Your task to perform on an android device: turn on showing notifications on the lock screen Image 0: 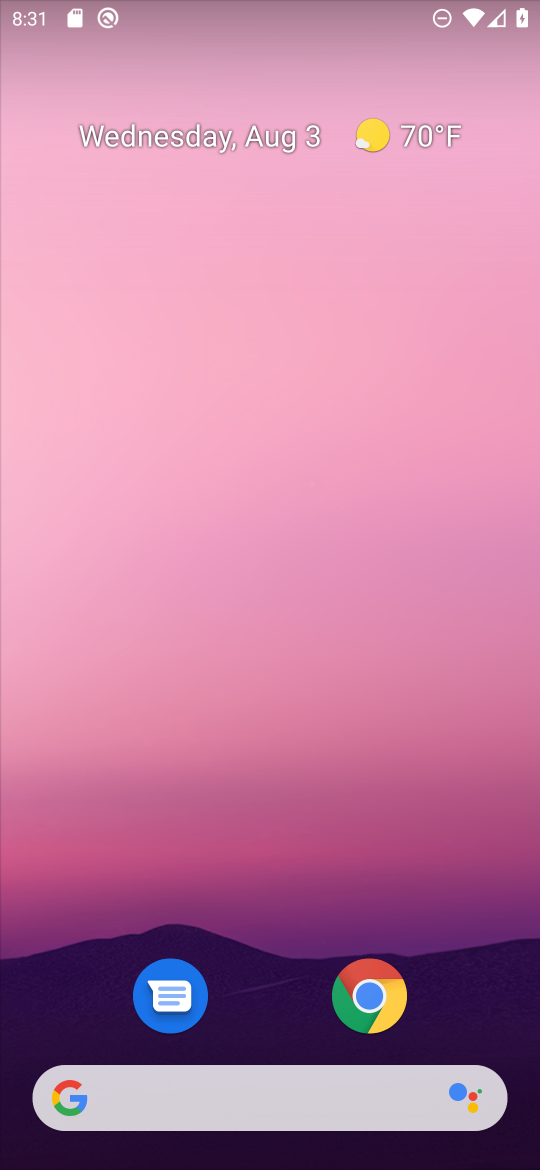
Step 0: drag from (269, 897) to (326, 7)
Your task to perform on an android device: turn on showing notifications on the lock screen Image 1: 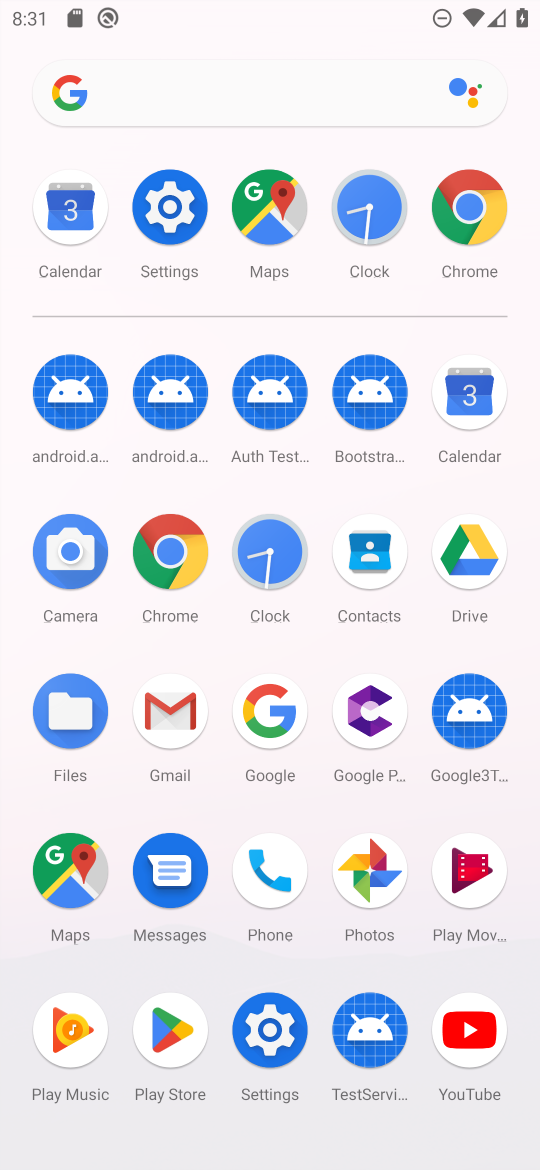
Step 1: click (186, 200)
Your task to perform on an android device: turn on showing notifications on the lock screen Image 2: 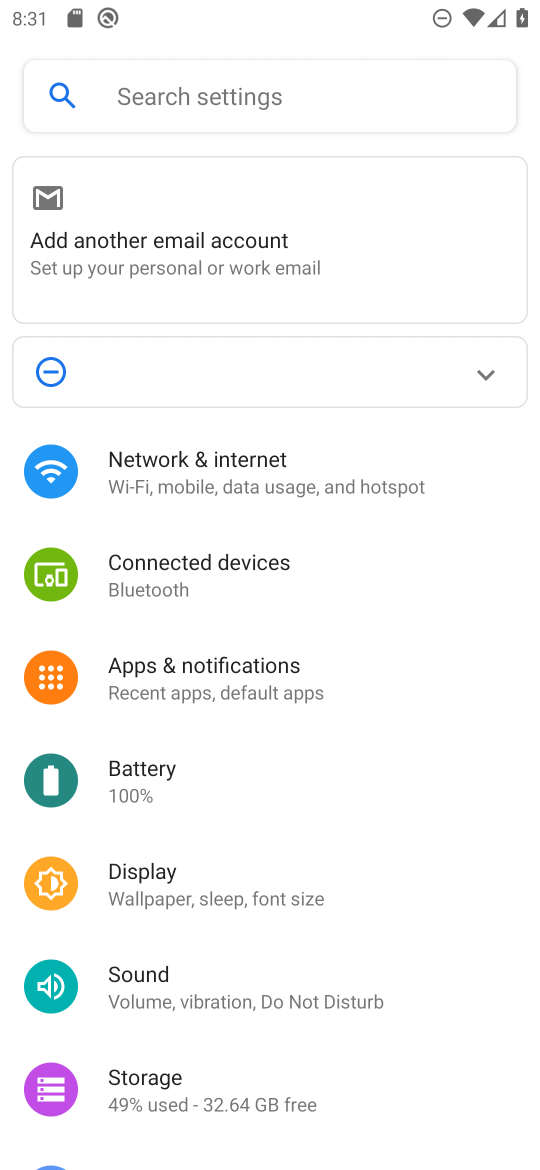
Step 2: click (212, 673)
Your task to perform on an android device: turn on showing notifications on the lock screen Image 3: 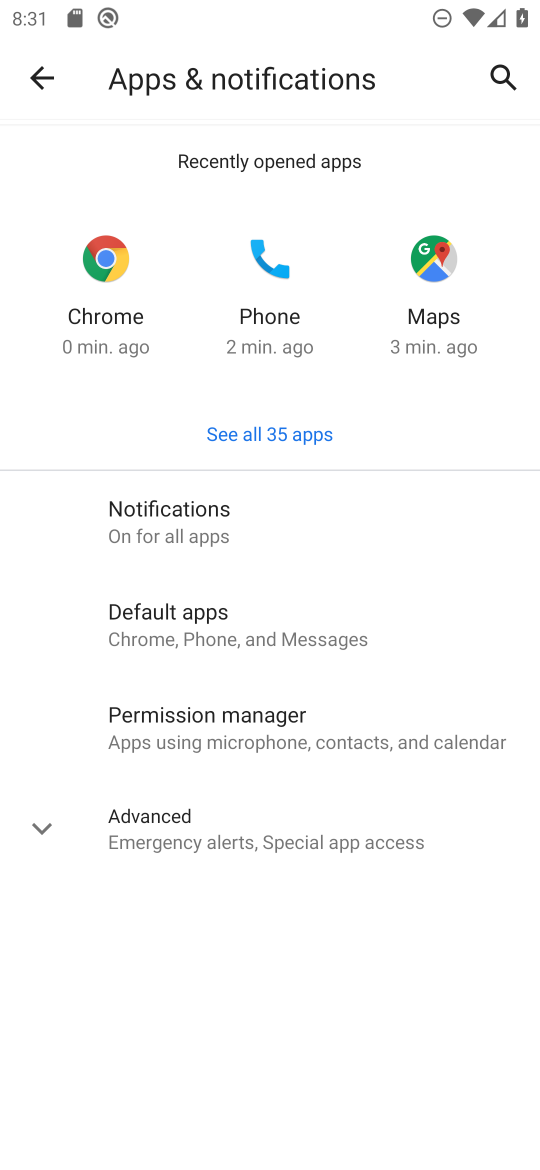
Step 3: click (215, 525)
Your task to perform on an android device: turn on showing notifications on the lock screen Image 4: 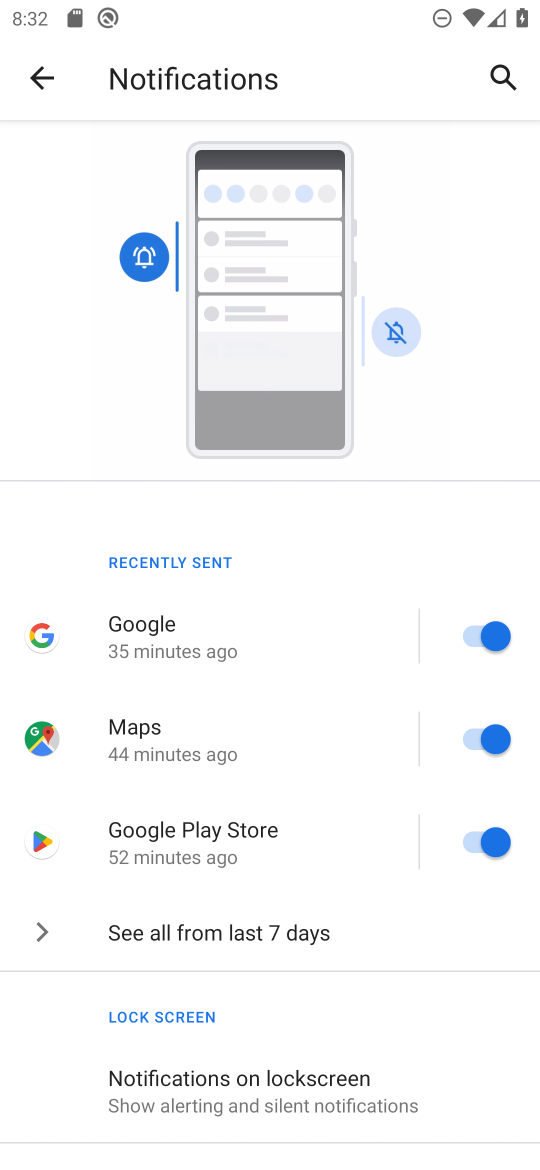
Step 4: drag from (334, 816) to (362, 102)
Your task to perform on an android device: turn on showing notifications on the lock screen Image 5: 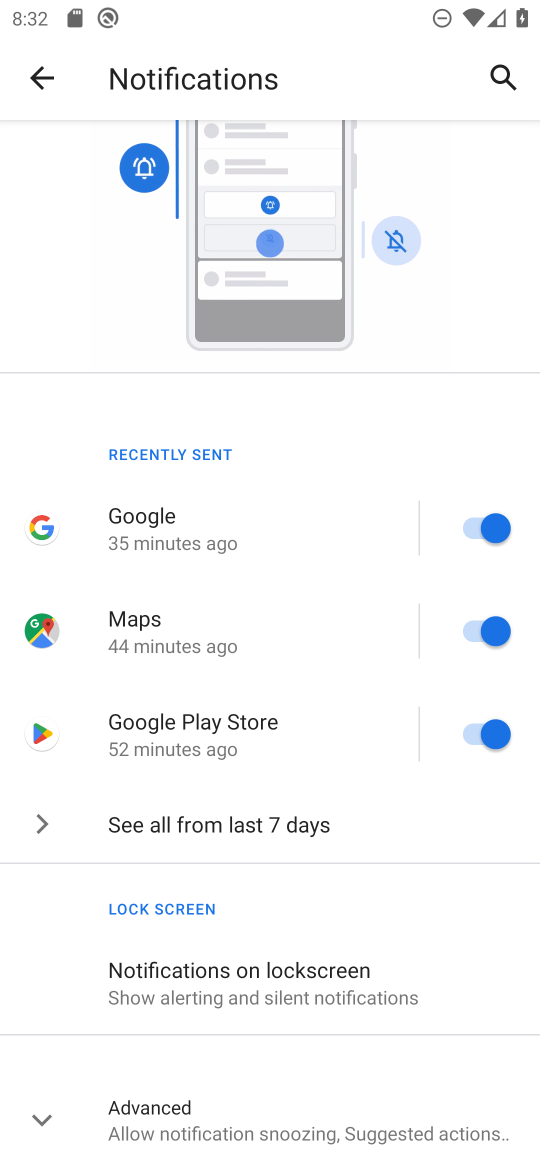
Step 5: click (267, 987)
Your task to perform on an android device: turn on showing notifications on the lock screen Image 6: 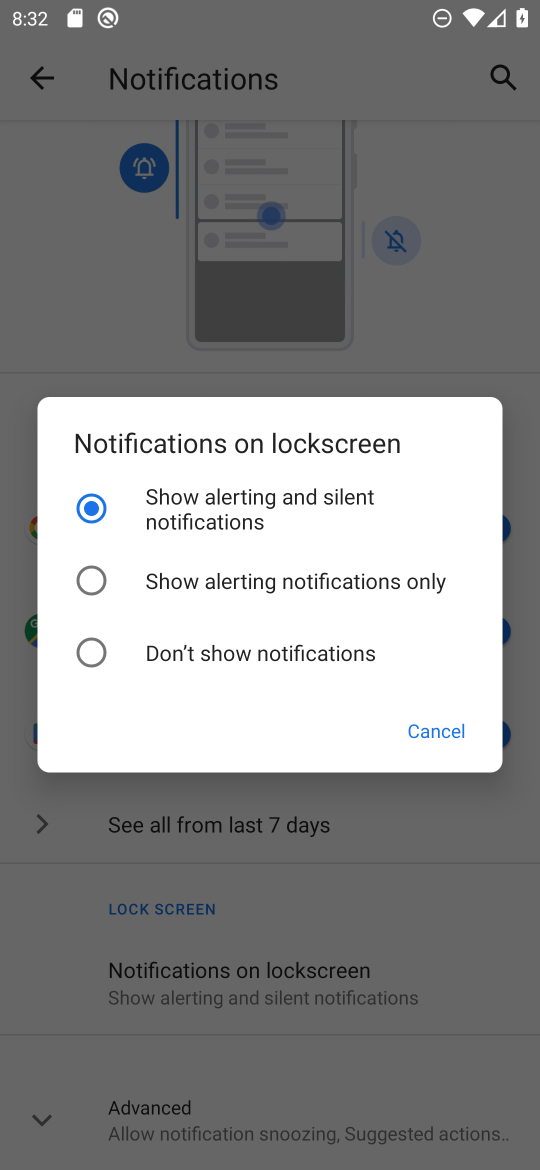
Step 6: click (441, 728)
Your task to perform on an android device: turn on showing notifications on the lock screen Image 7: 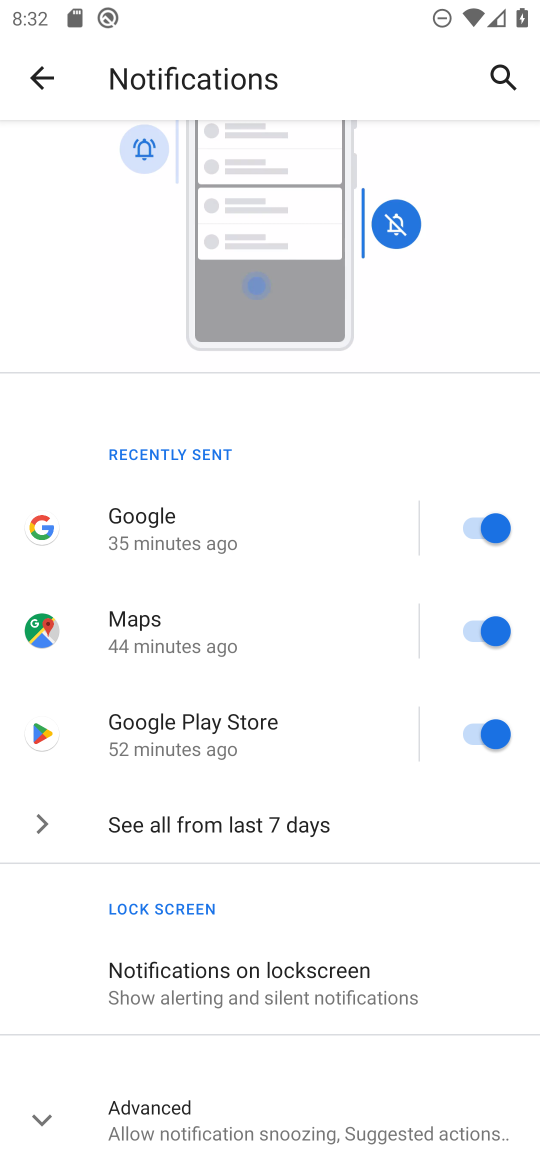
Step 7: task complete